Your task to perform on an android device: turn on sleep mode Image 0: 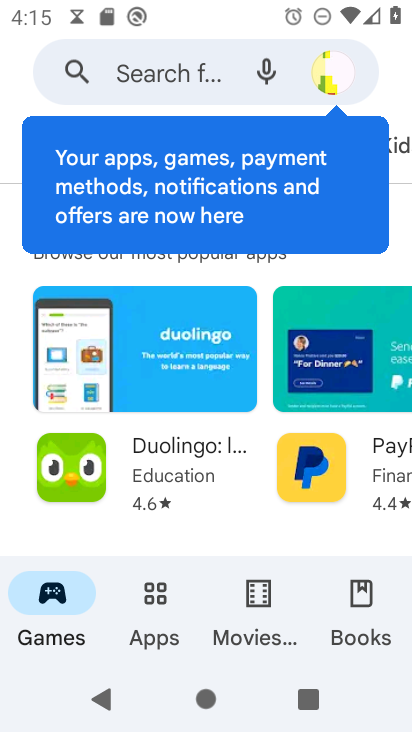
Step 0: press home button
Your task to perform on an android device: turn on sleep mode Image 1: 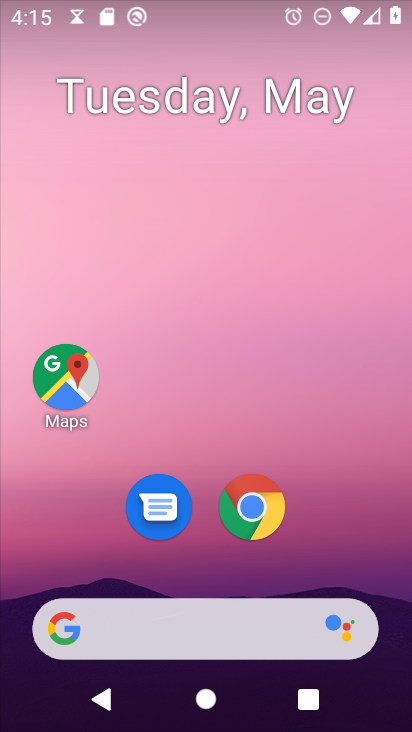
Step 1: drag from (208, 578) to (200, 109)
Your task to perform on an android device: turn on sleep mode Image 2: 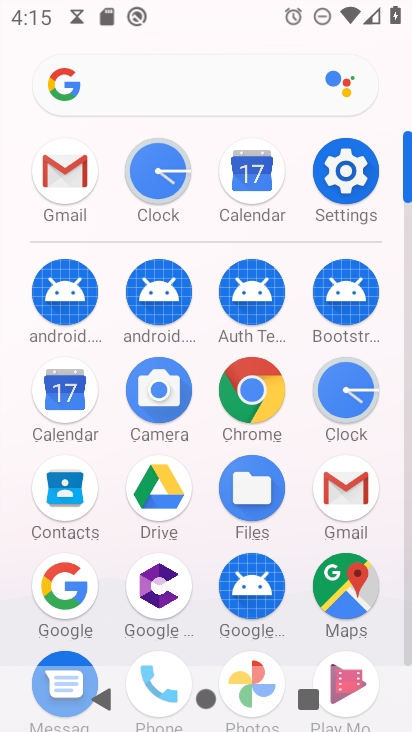
Step 2: click (354, 174)
Your task to perform on an android device: turn on sleep mode Image 3: 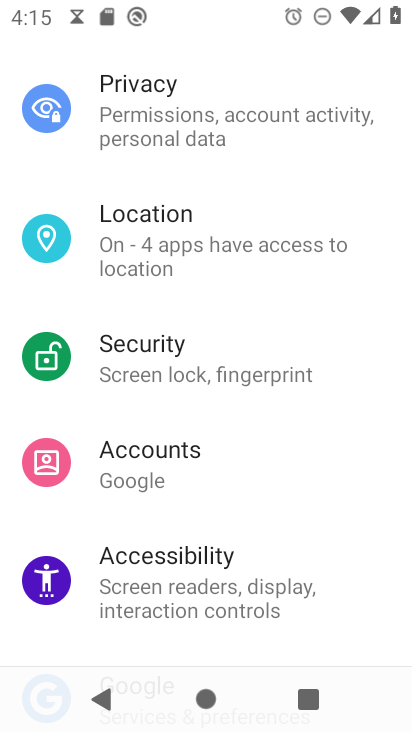
Step 3: task complete